Your task to perform on an android device: turn off airplane mode Image 0: 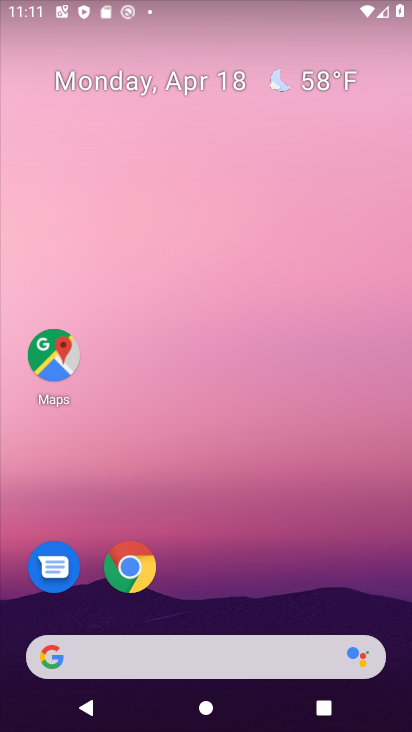
Step 0: drag from (392, 617) to (360, 217)
Your task to perform on an android device: turn off airplane mode Image 1: 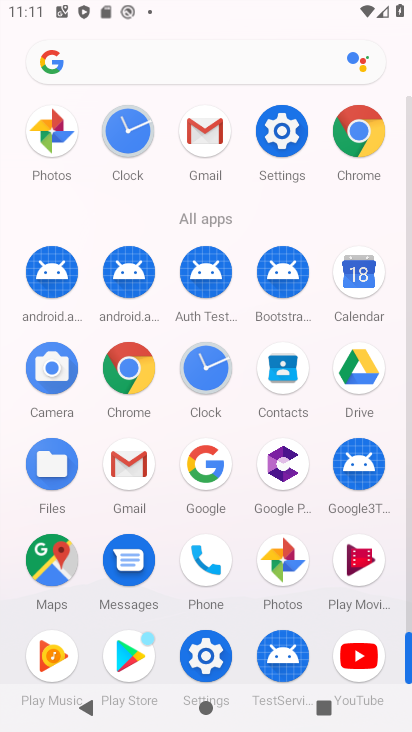
Step 1: click (204, 653)
Your task to perform on an android device: turn off airplane mode Image 2: 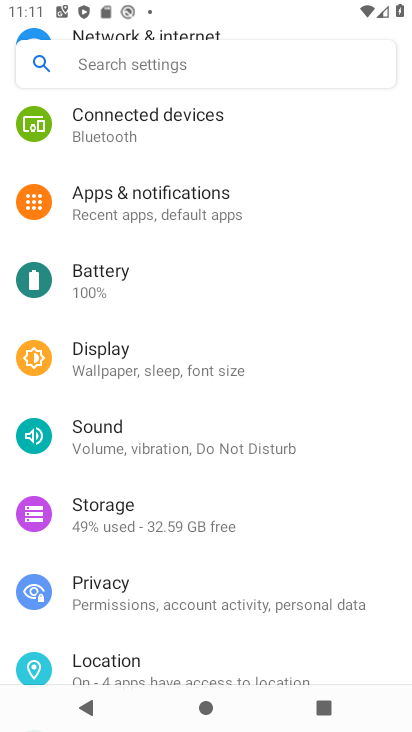
Step 2: drag from (266, 204) to (239, 401)
Your task to perform on an android device: turn off airplane mode Image 3: 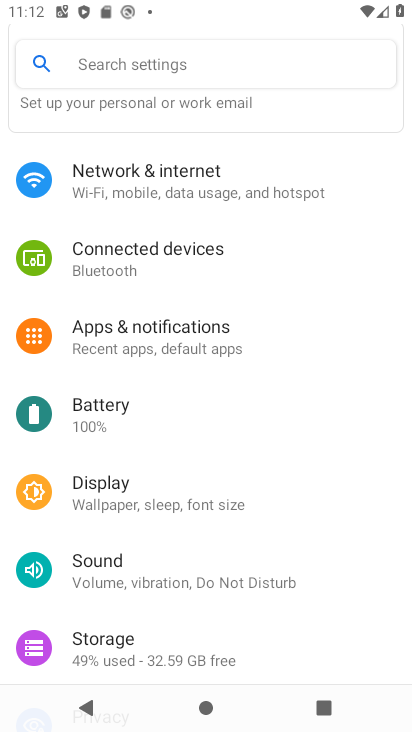
Step 3: click (142, 186)
Your task to perform on an android device: turn off airplane mode Image 4: 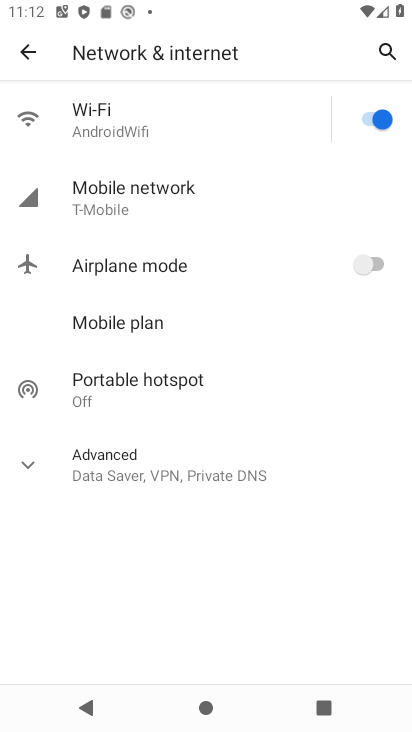
Step 4: task complete